Your task to perform on an android device: make emails show in primary in the gmail app Image 0: 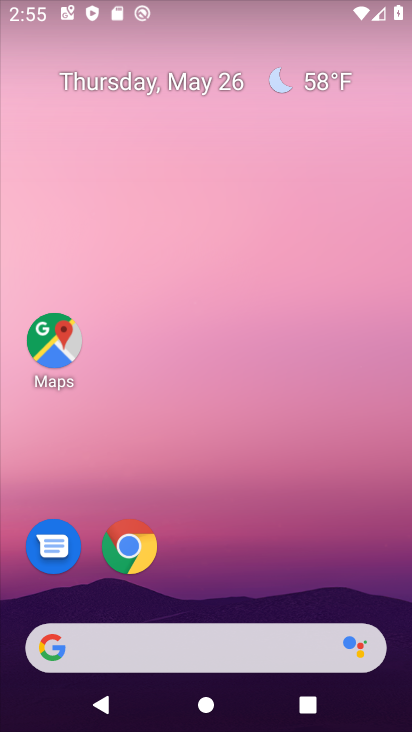
Step 0: click (331, 152)
Your task to perform on an android device: make emails show in primary in the gmail app Image 1: 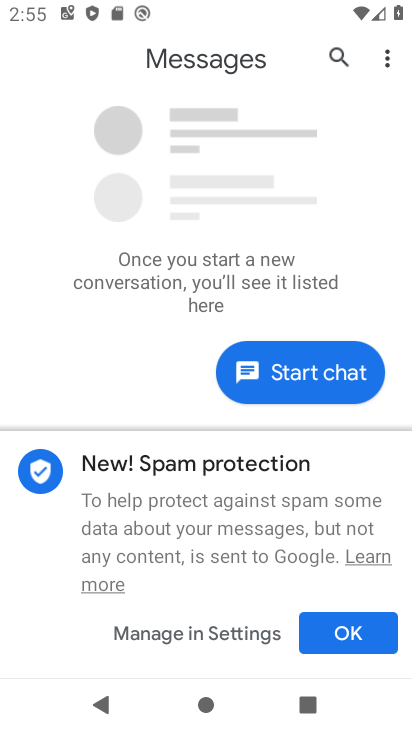
Step 1: drag from (272, 361) to (287, 30)
Your task to perform on an android device: make emails show in primary in the gmail app Image 2: 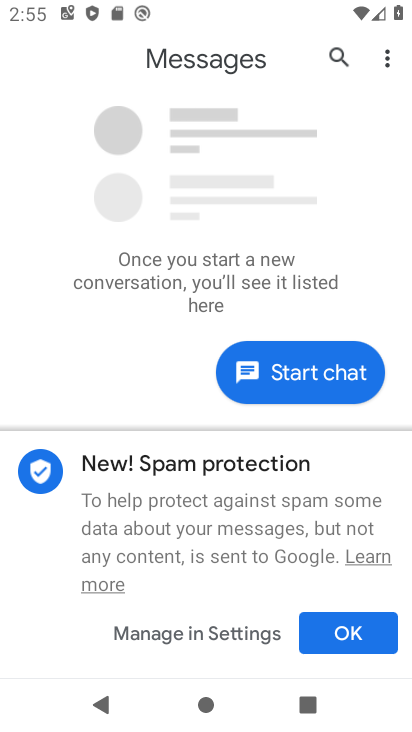
Step 2: press home button
Your task to perform on an android device: make emails show in primary in the gmail app Image 3: 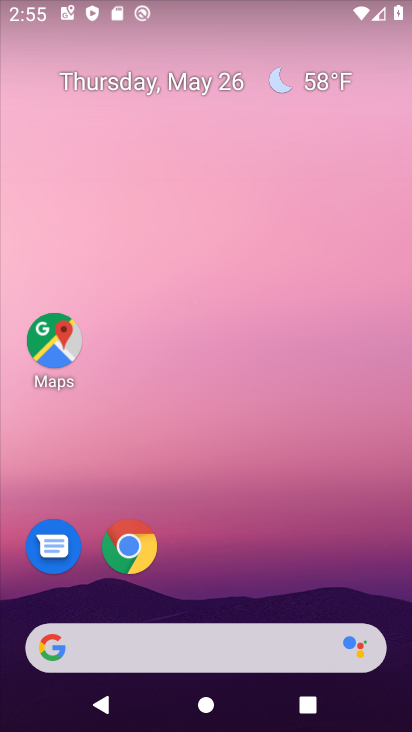
Step 3: drag from (232, 544) to (222, 92)
Your task to perform on an android device: make emails show in primary in the gmail app Image 4: 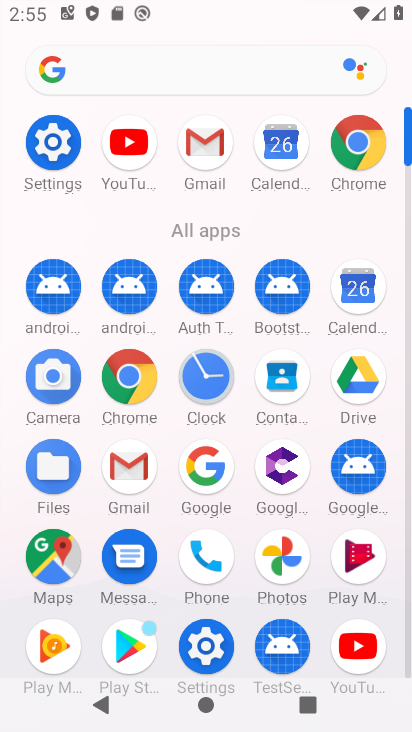
Step 4: click (205, 136)
Your task to perform on an android device: make emails show in primary in the gmail app Image 5: 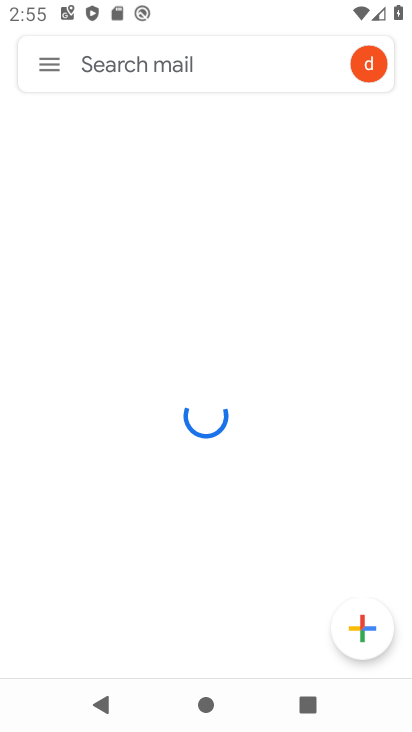
Step 5: click (43, 59)
Your task to perform on an android device: make emails show in primary in the gmail app Image 6: 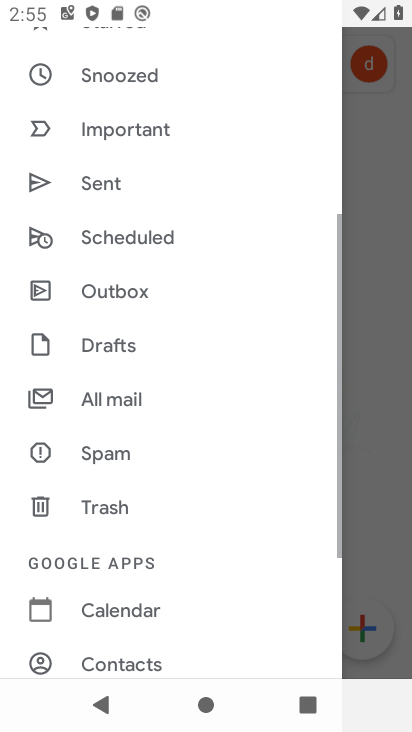
Step 6: drag from (145, 634) to (144, 176)
Your task to perform on an android device: make emails show in primary in the gmail app Image 7: 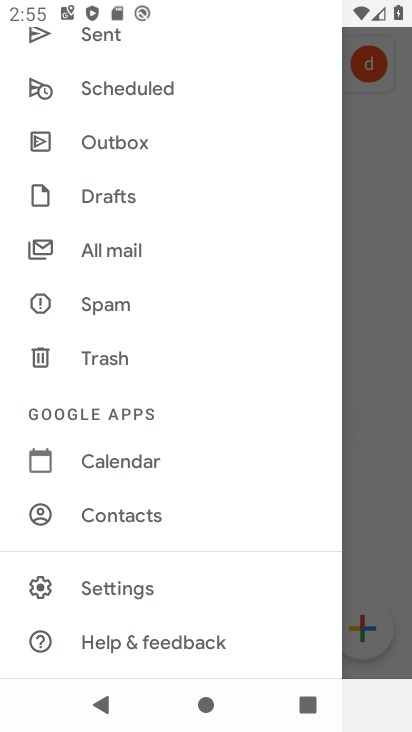
Step 7: click (169, 581)
Your task to perform on an android device: make emails show in primary in the gmail app Image 8: 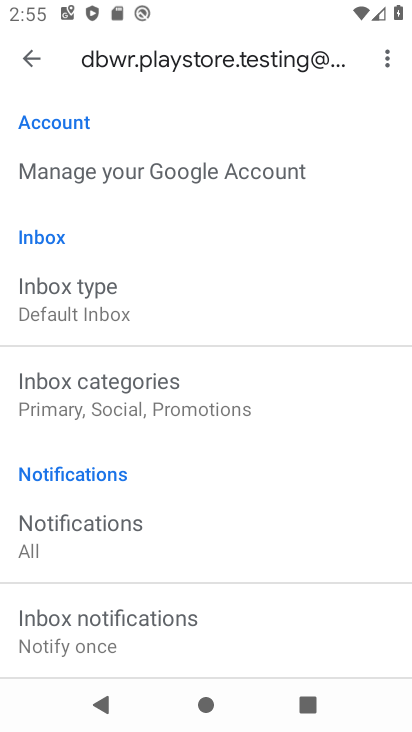
Step 8: click (137, 284)
Your task to perform on an android device: make emails show in primary in the gmail app Image 9: 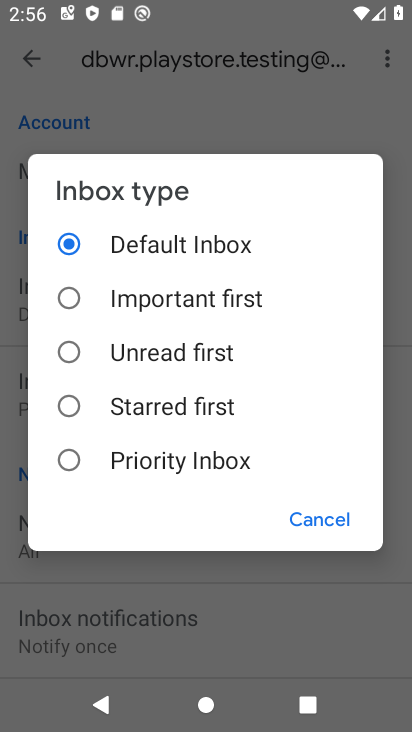
Step 9: click (114, 228)
Your task to perform on an android device: make emails show in primary in the gmail app Image 10: 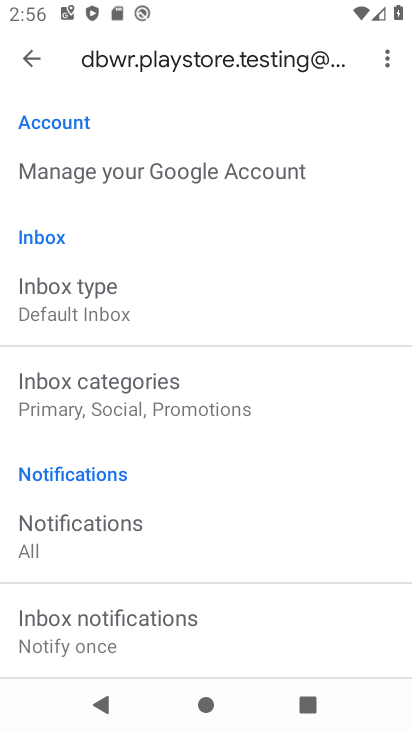
Step 10: task complete